Your task to perform on an android device: turn off location history Image 0: 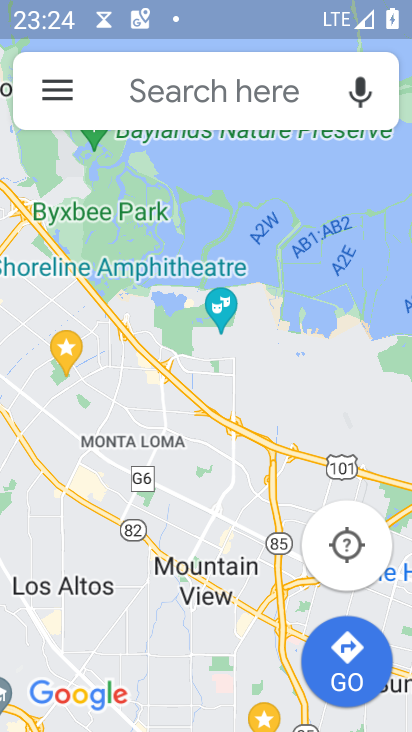
Step 0: press home button
Your task to perform on an android device: turn off location history Image 1: 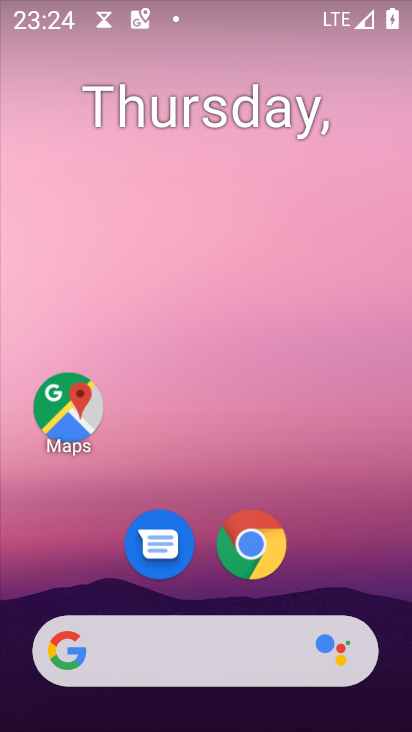
Step 1: drag from (300, 527) to (242, 158)
Your task to perform on an android device: turn off location history Image 2: 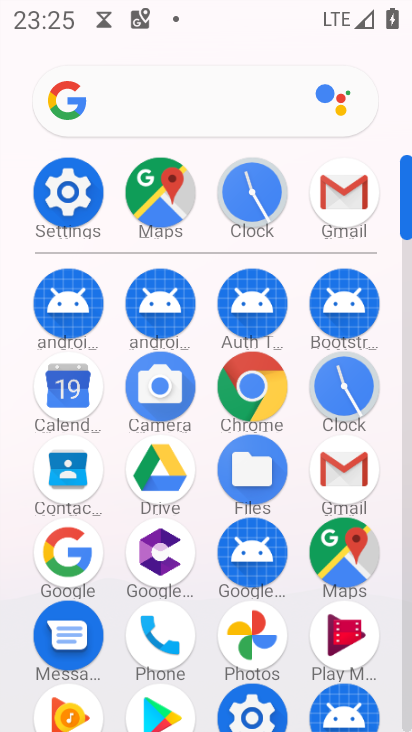
Step 2: click (258, 713)
Your task to perform on an android device: turn off location history Image 3: 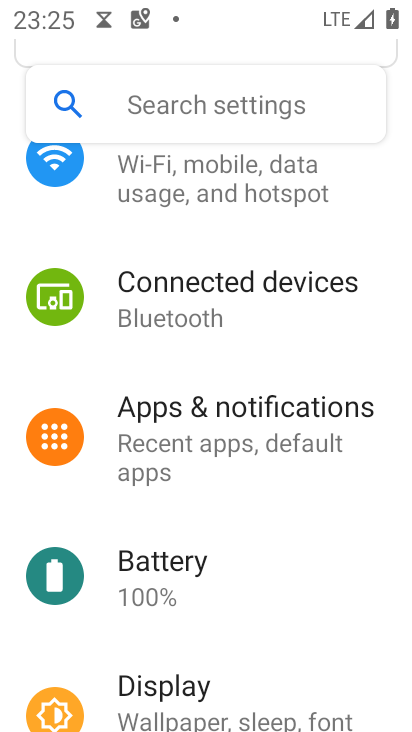
Step 3: drag from (202, 687) to (228, 317)
Your task to perform on an android device: turn off location history Image 4: 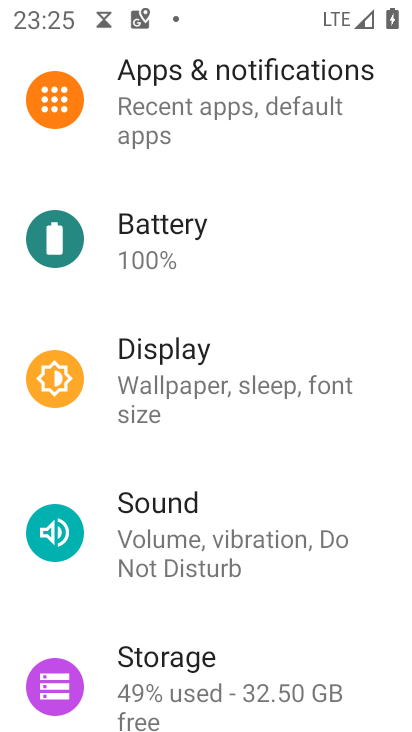
Step 4: drag from (193, 656) to (240, 304)
Your task to perform on an android device: turn off location history Image 5: 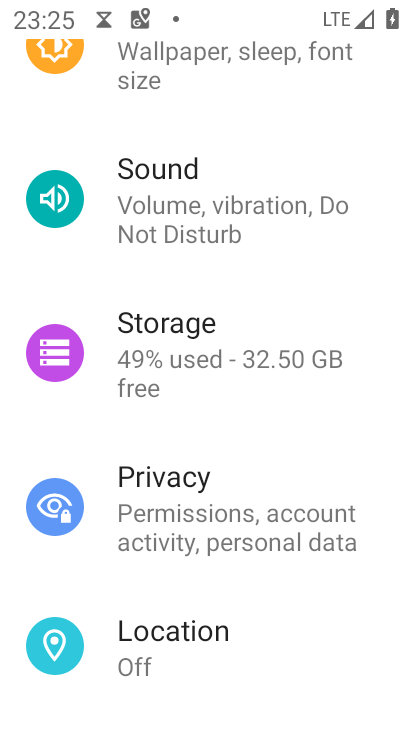
Step 5: click (168, 642)
Your task to perform on an android device: turn off location history Image 6: 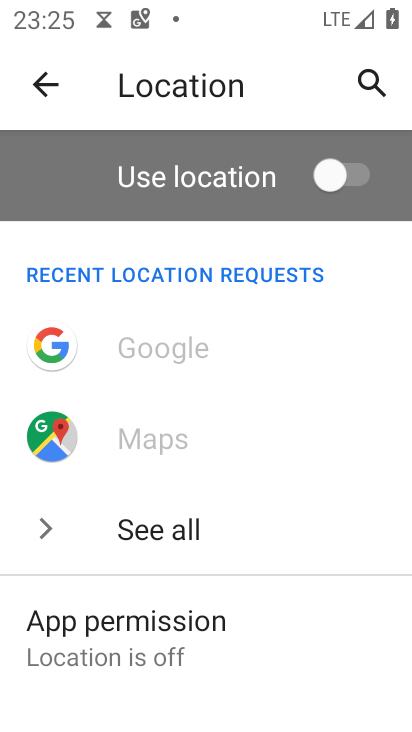
Step 6: drag from (201, 676) to (214, 368)
Your task to perform on an android device: turn off location history Image 7: 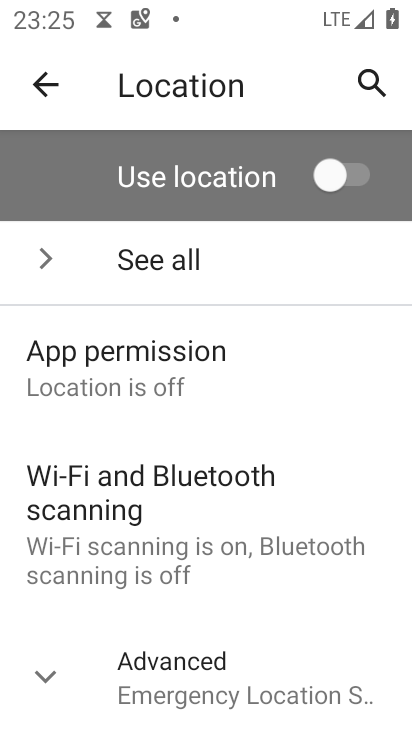
Step 7: click (184, 678)
Your task to perform on an android device: turn off location history Image 8: 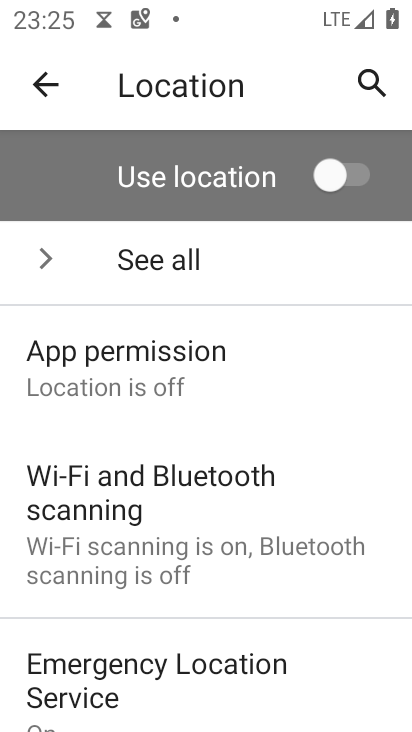
Step 8: drag from (185, 679) to (234, 447)
Your task to perform on an android device: turn off location history Image 9: 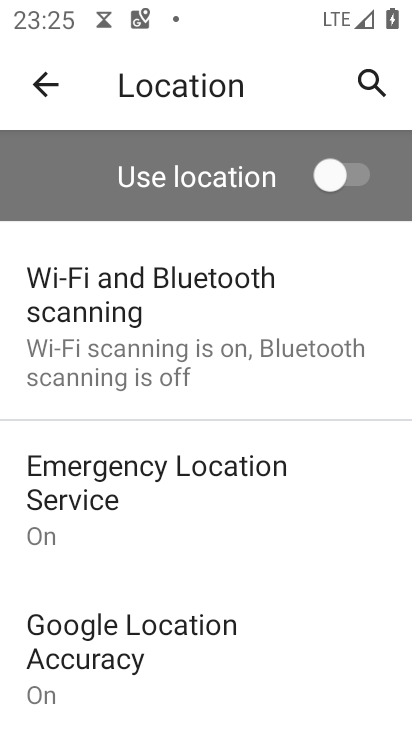
Step 9: drag from (158, 678) to (208, 411)
Your task to perform on an android device: turn off location history Image 10: 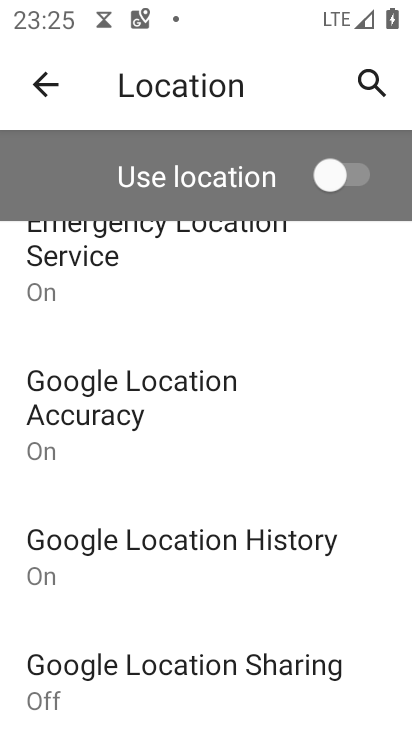
Step 10: click (123, 565)
Your task to perform on an android device: turn off location history Image 11: 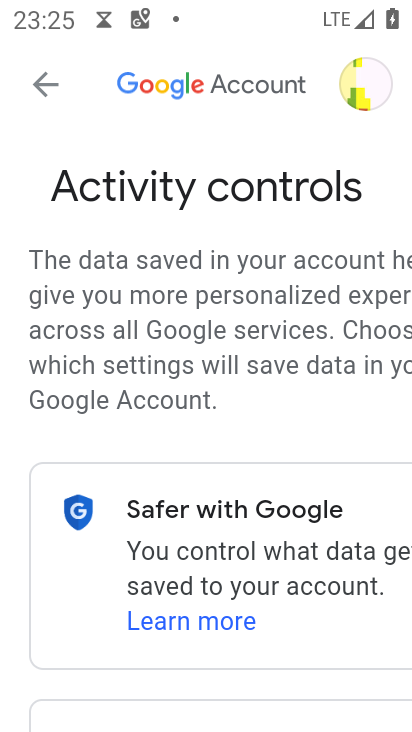
Step 11: drag from (278, 669) to (277, 243)
Your task to perform on an android device: turn off location history Image 12: 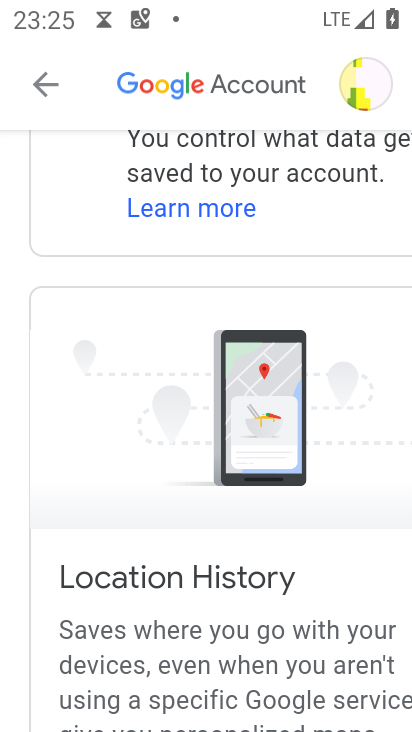
Step 12: drag from (233, 649) to (199, 391)
Your task to perform on an android device: turn off location history Image 13: 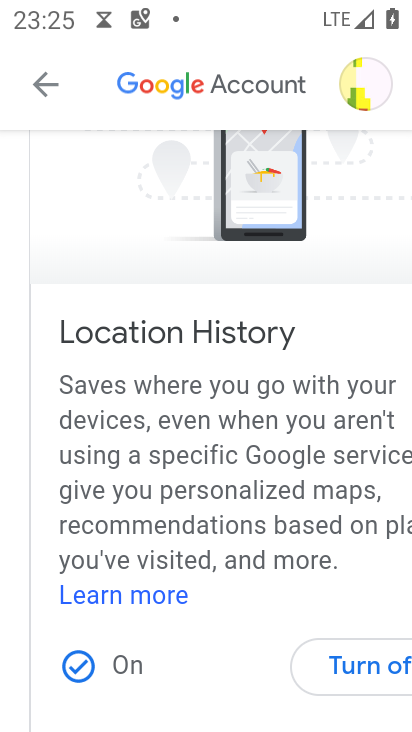
Step 13: click (369, 671)
Your task to perform on an android device: turn off location history Image 14: 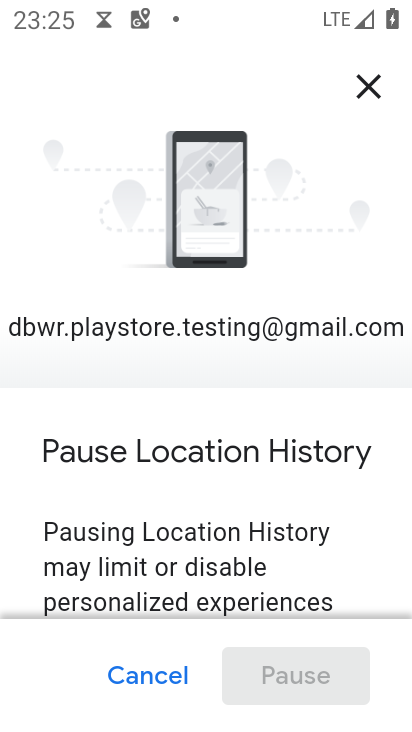
Step 14: drag from (243, 560) to (255, 91)
Your task to perform on an android device: turn off location history Image 15: 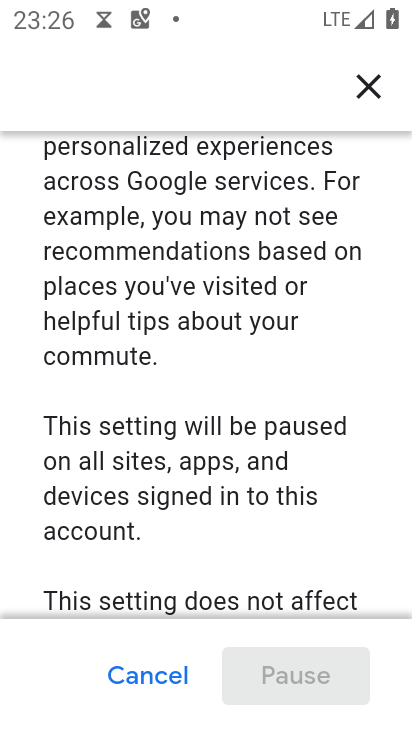
Step 15: drag from (214, 559) to (270, 181)
Your task to perform on an android device: turn off location history Image 16: 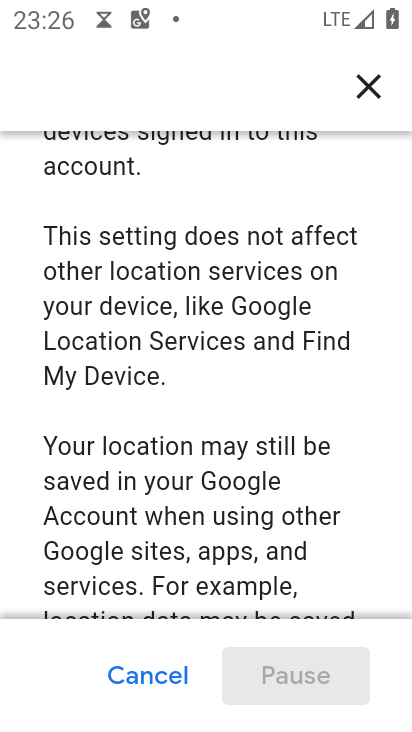
Step 16: drag from (257, 584) to (296, 196)
Your task to perform on an android device: turn off location history Image 17: 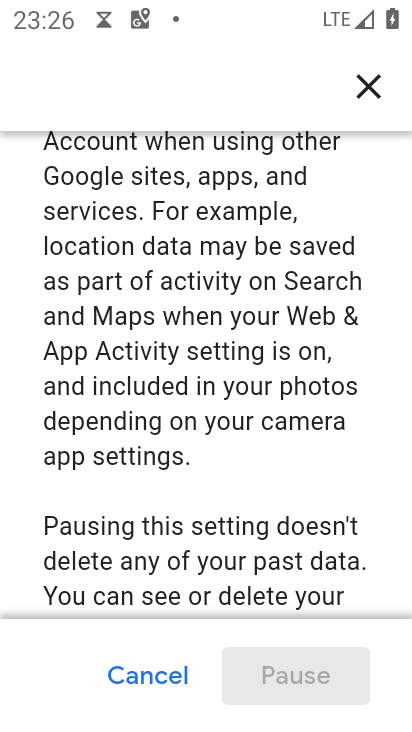
Step 17: drag from (237, 590) to (284, 142)
Your task to perform on an android device: turn off location history Image 18: 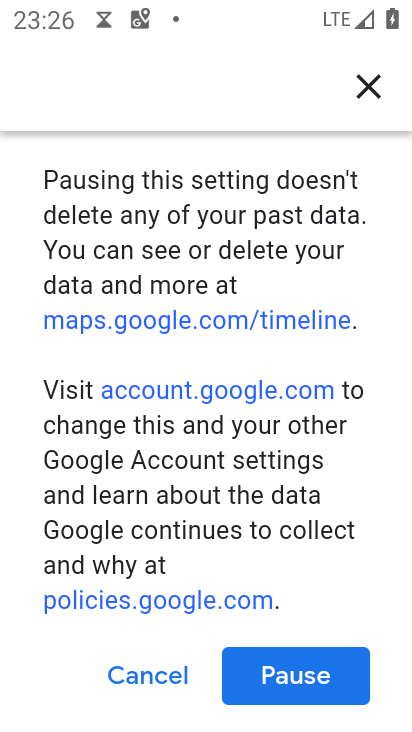
Step 18: click (280, 679)
Your task to perform on an android device: turn off location history Image 19: 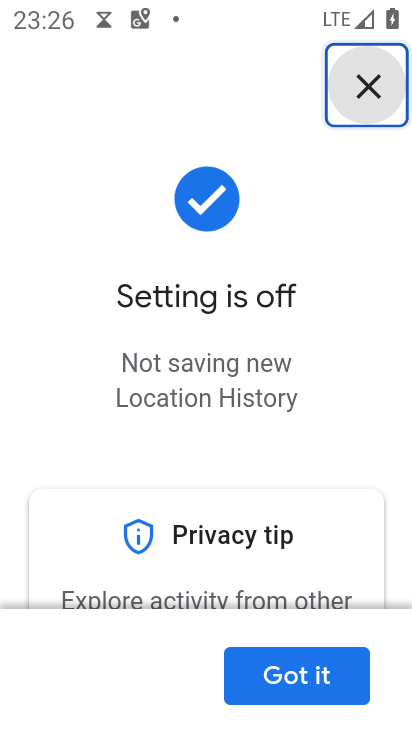
Step 19: click (280, 679)
Your task to perform on an android device: turn off location history Image 20: 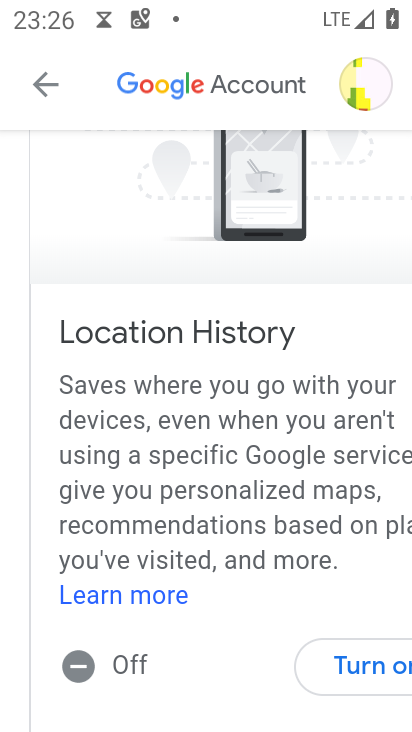
Step 20: task complete